Your task to perform on an android device: Go to location settings Image 0: 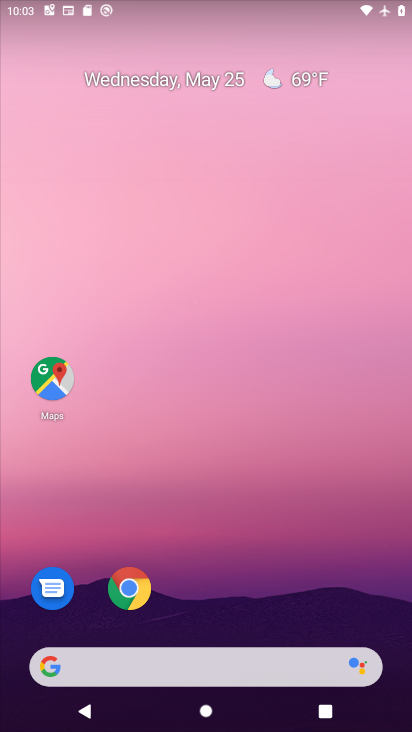
Step 0: drag from (365, 580) to (377, 85)
Your task to perform on an android device: Go to location settings Image 1: 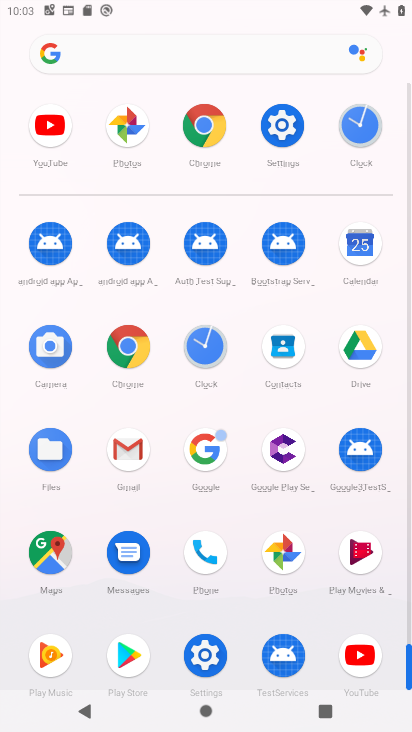
Step 1: click (284, 132)
Your task to perform on an android device: Go to location settings Image 2: 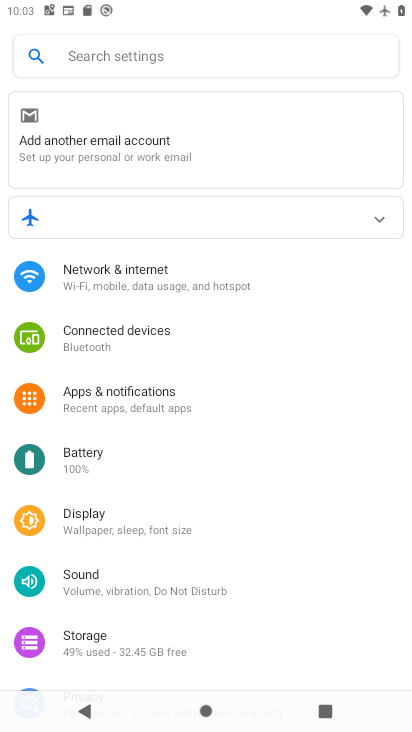
Step 2: drag from (318, 525) to (330, 429)
Your task to perform on an android device: Go to location settings Image 3: 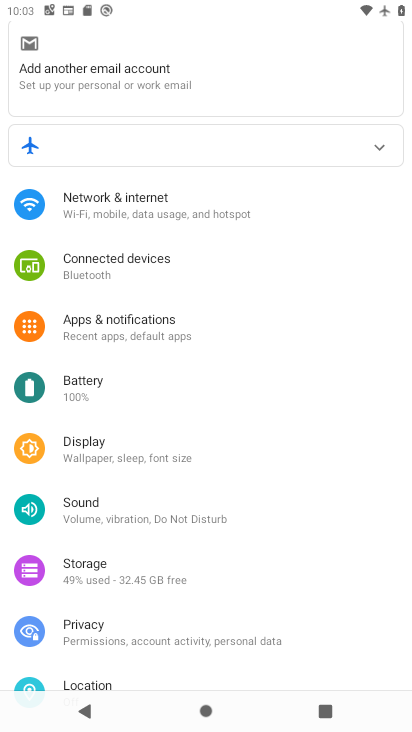
Step 3: drag from (313, 599) to (333, 515)
Your task to perform on an android device: Go to location settings Image 4: 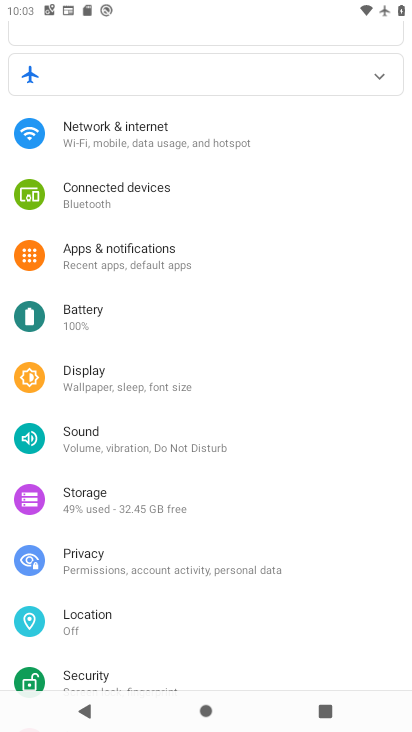
Step 4: drag from (342, 618) to (353, 521)
Your task to perform on an android device: Go to location settings Image 5: 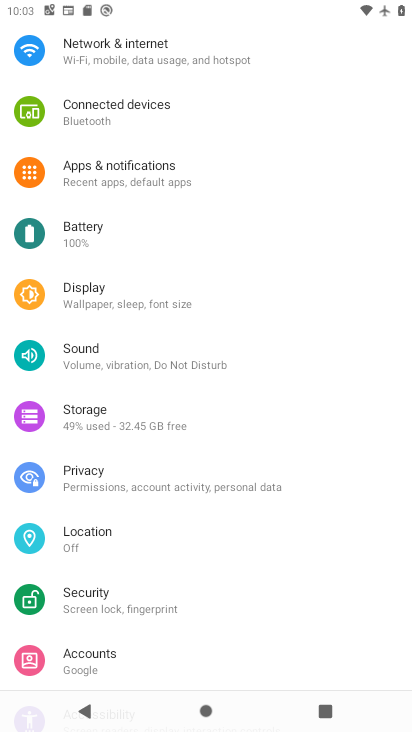
Step 5: drag from (334, 587) to (334, 468)
Your task to perform on an android device: Go to location settings Image 6: 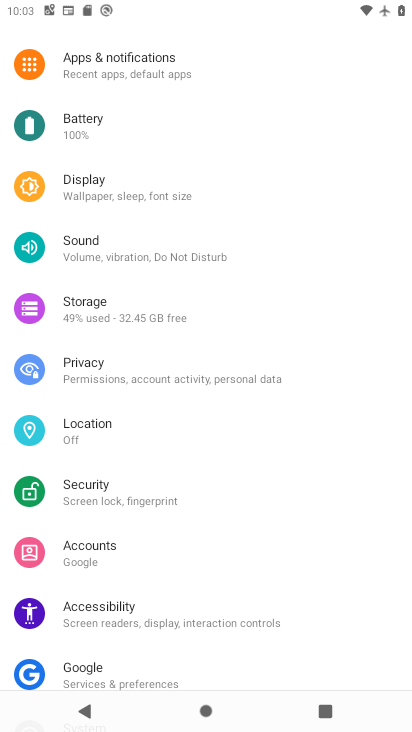
Step 6: drag from (339, 597) to (346, 461)
Your task to perform on an android device: Go to location settings Image 7: 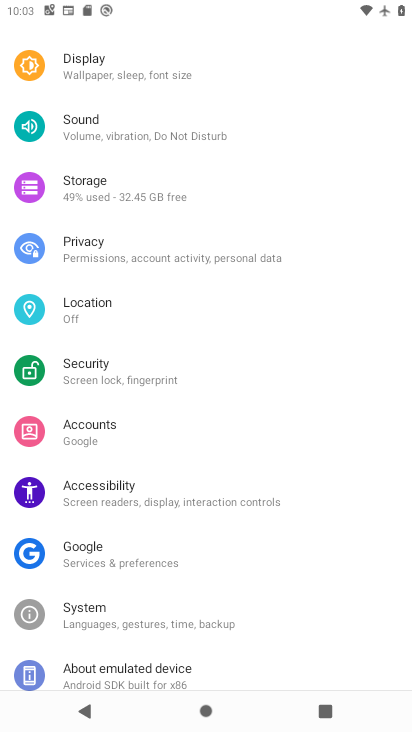
Step 7: drag from (333, 580) to (322, 448)
Your task to perform on an android device: Go to location settings Image 8: 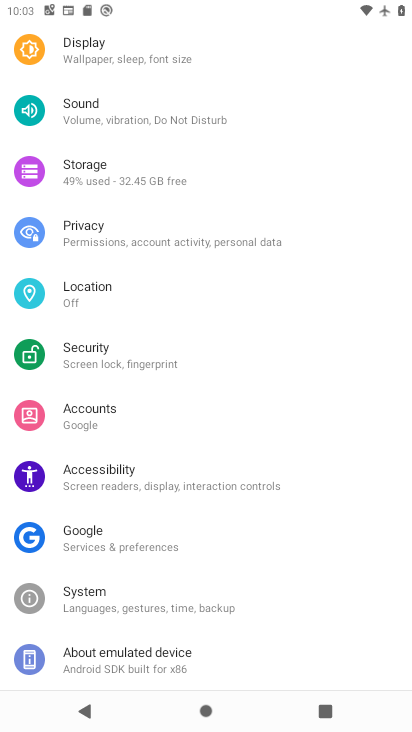
Step 8: click (111, 299)
Your task to perform on an android device: Go to location settings Image 9: 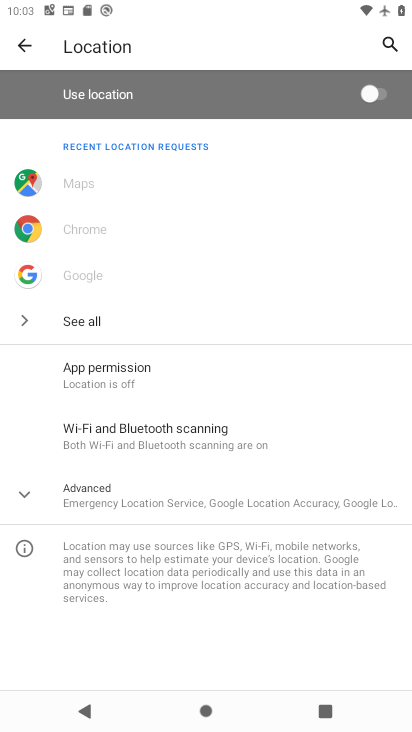
Step 9: task complete